Your task to perform on an android device: turn vacation reply on in the gmail app Image 0: 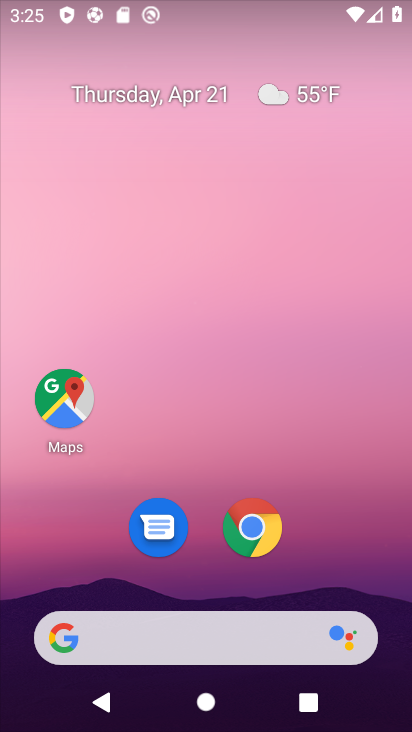
Step 0: drag from (355, 575) to (306, 174)
Your task to perform on an android device: turn vacation reply on in the gmail app Image 1: 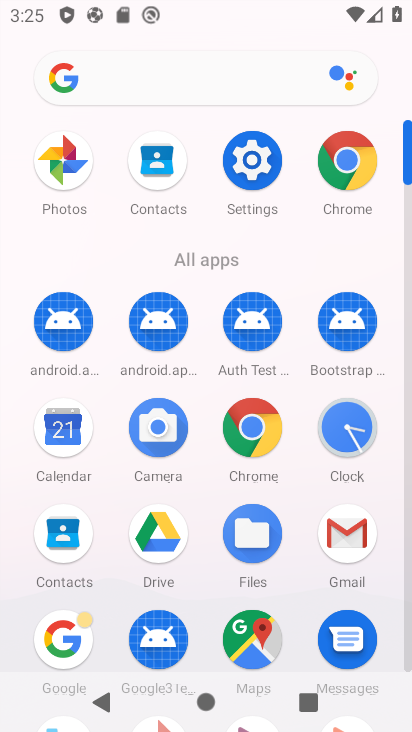
Step 1: click (345, 525)
Your task to perform on an android device: turn vacation reply on in the gmail app Image 2: 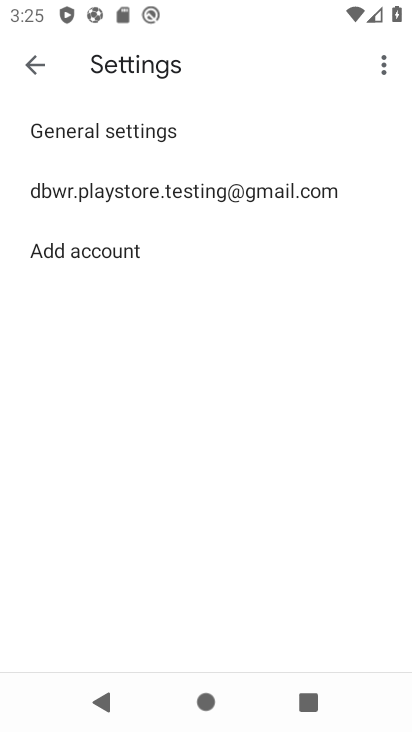
Step 2: click (205, 188)
Your task to perform on an android device: turn vacation reply on in the gmail app Image 3: 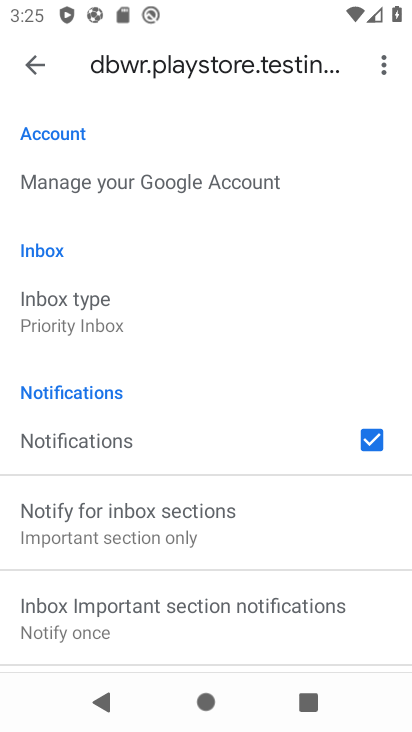
Step 3: drag from (261, 553) to (258, 164)
Your task to perform on an android device: turn vacation reply on in the gmail app Image 4: 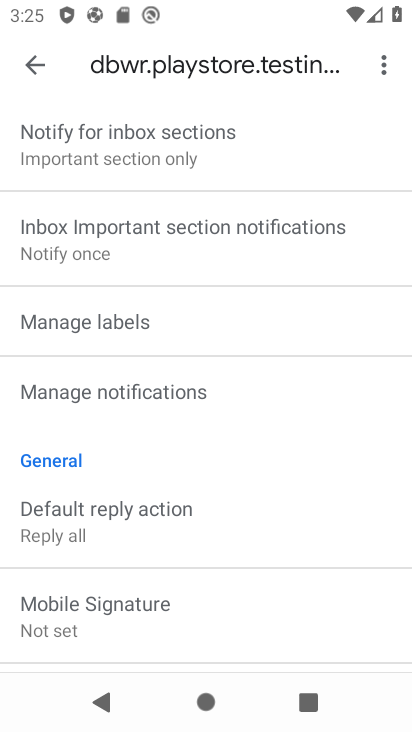
Step 4: drag from (244, 585) to (222, 232)
Your task to perform on an android device: turn vacation reply on in the gmail app Image 5: 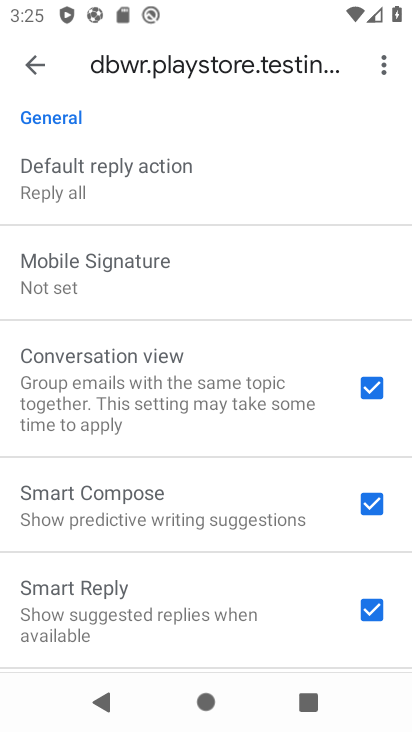
Step 5: drag from (234, 578) to (219, 275)
Your task to perform on an android device: turn vacation reply on in the gmail app Image 6: 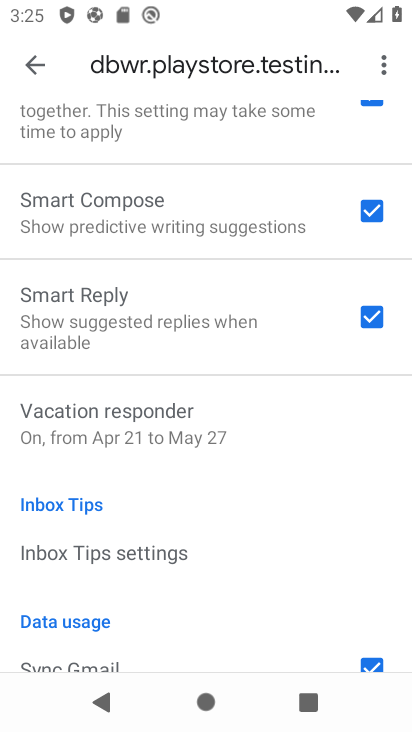
Step 6: click (250, 418)
Your task to perform on an android device: turn vacation reply on in the gmail app Image 7: 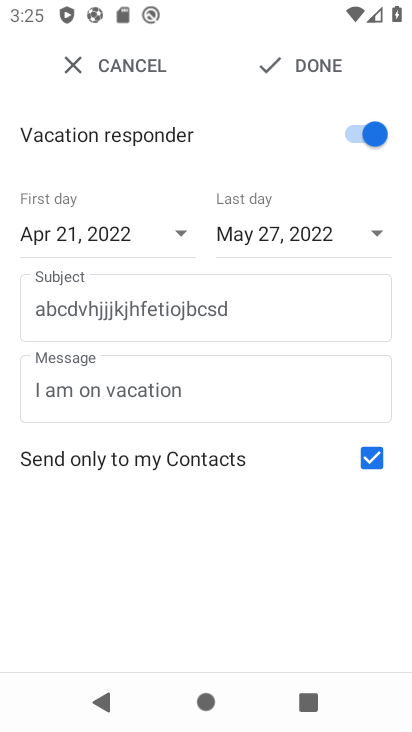
Step 7: click (322, 65)
Your task to perform on an android device: turn vacation reply on in the gmail app Image 8: 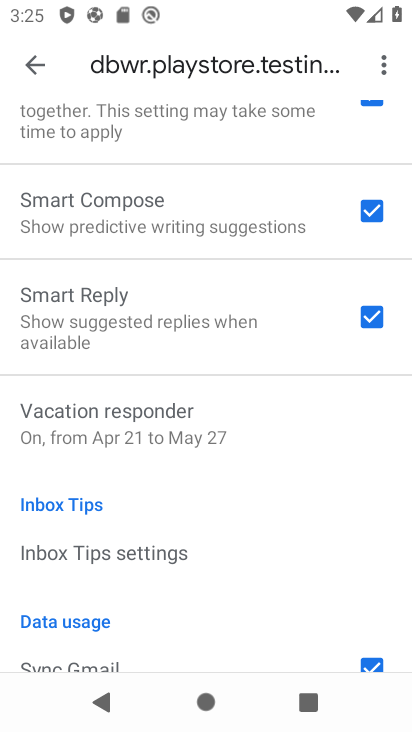
Step 8: task complete